Your task to perform on an android device: Go to accessibility settings Image 0: 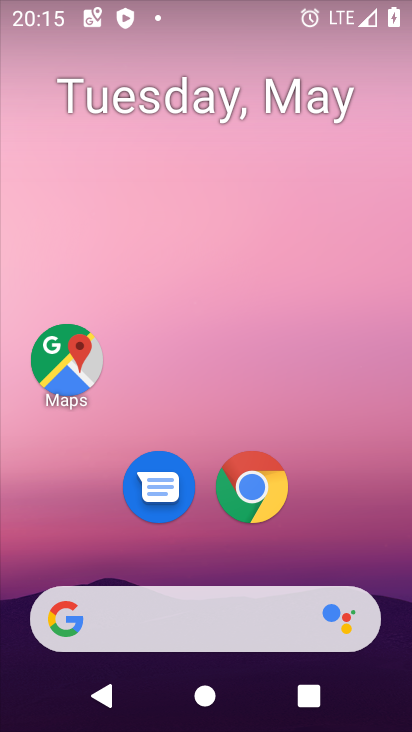
Step 0: drag from (321, 396) to (213, 35)
Your task to perform on an android device: Go to accessibility settings Image 1: 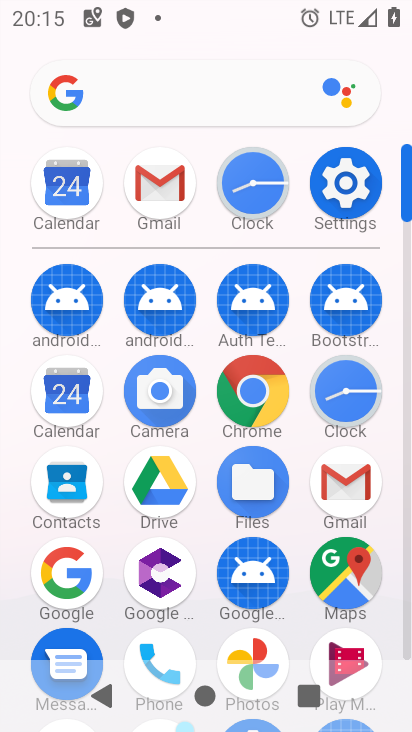
Step 1: click (345, 186)
Your task to perform on an android device: Go to accessibility settings Image 2: 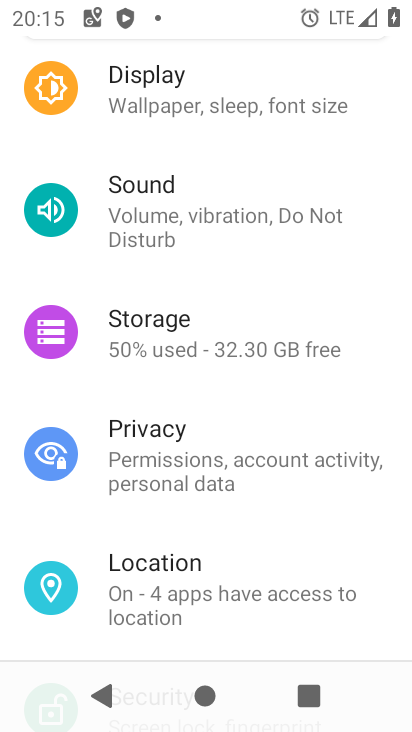
Step 2: drag from (240, 507) to (204, 159)
Your task to perform on an android device: Go to accessibility settings Image 3: 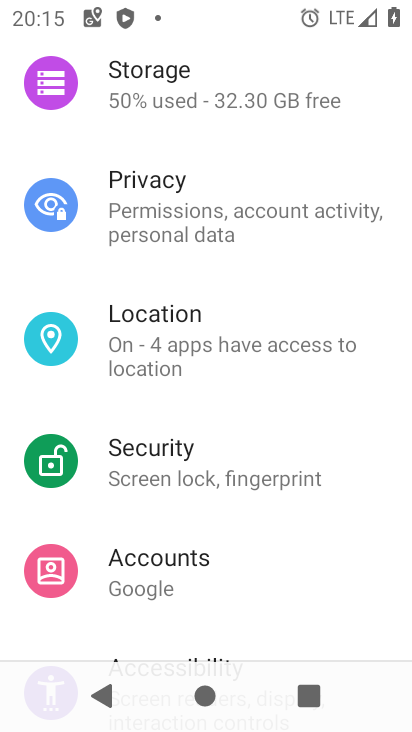
Step 3: drag from (242, 528) to (244, 206)
Your task to perform on an android device: Go to accessibility settings Image 4: 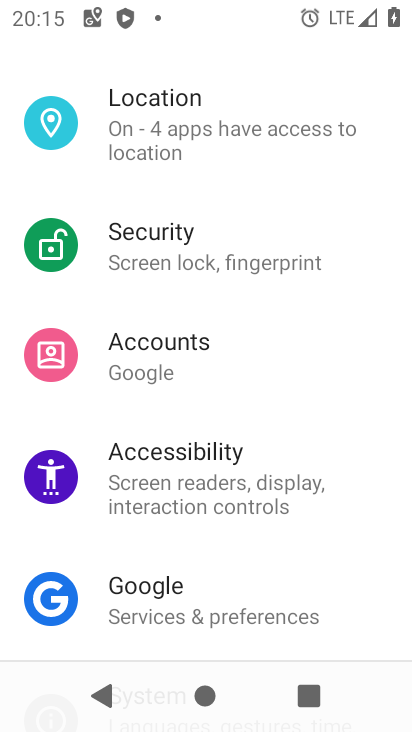
Step 4: click (164, 469)
Your task to perform on an android device: Go to accessibility settings Image 5: 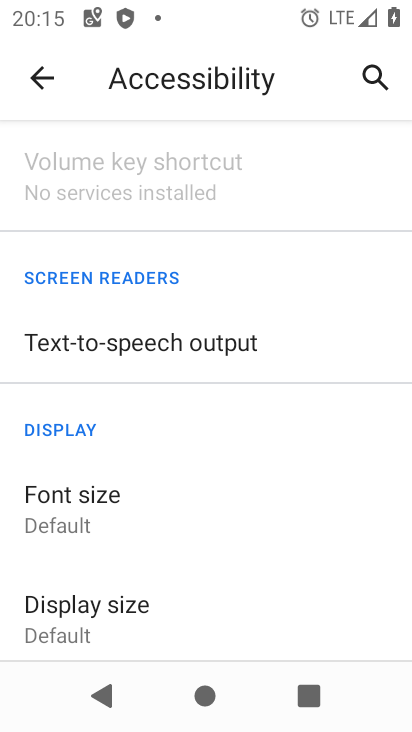
Step 5: task complete